Your task to perform on an android device: What is the news today? Image 0: 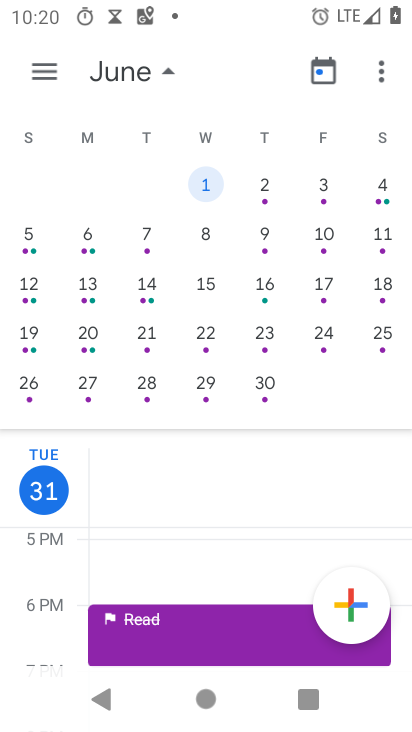
Step 0: task complete